Your task to perform on an android device: open app "Move to iOS" (install if not already installed) and enter user name: "Decca@icloud.com" and password: "reabbreviate" Image 0: 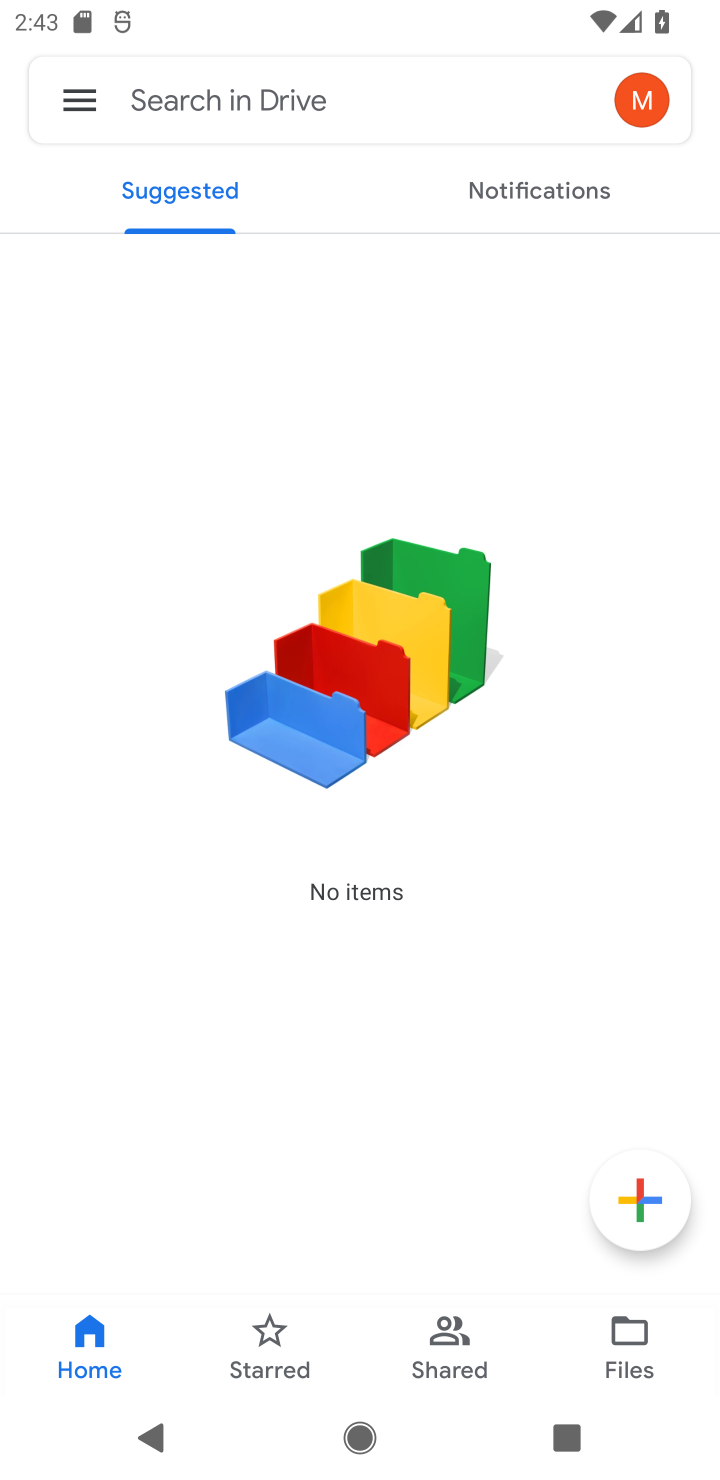
Step 0: click (591, 347)
Your task to perform on an android device: open app "Move to iOS" (install if not already installed) and enter user name: "Decca@icloud.com" and password: "reabbreviate" Image 1: 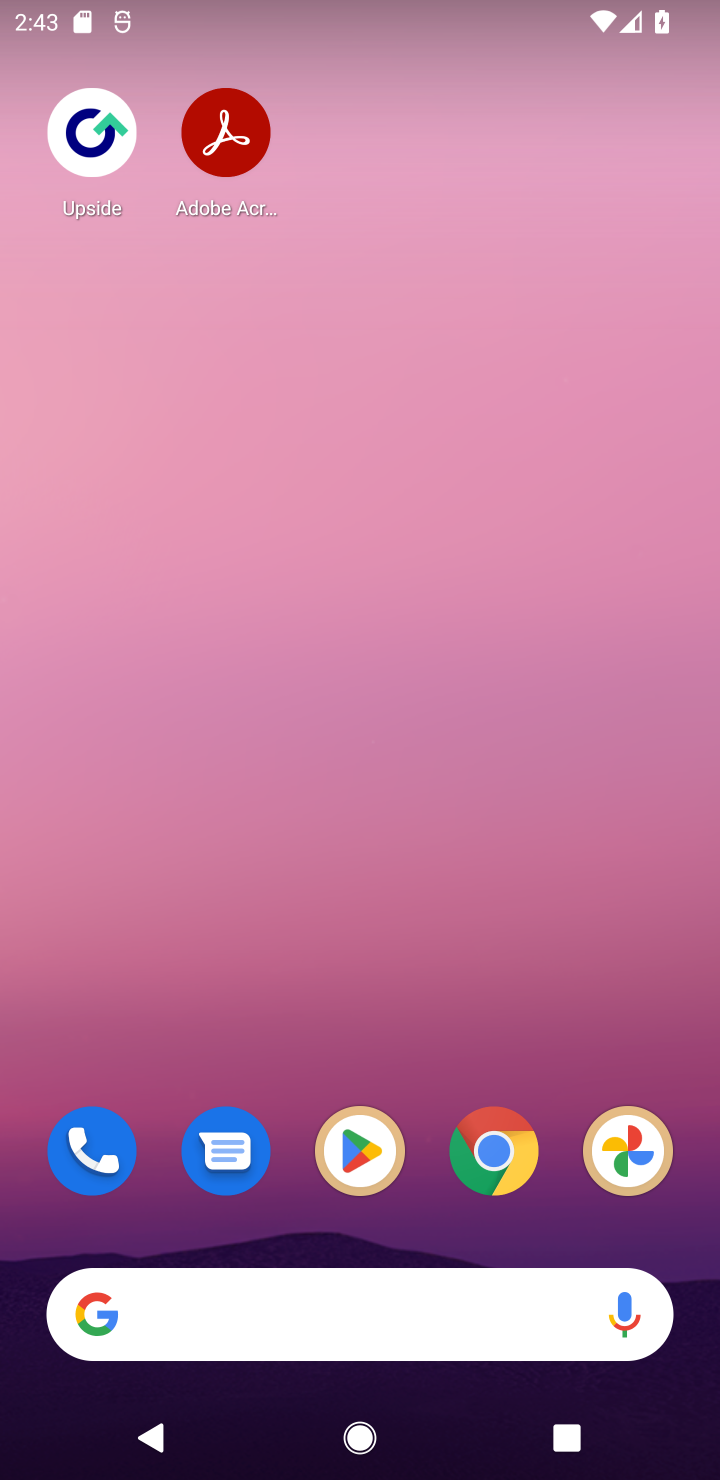
Step 1: click (377, 1174)
Your task to perform on an android device: open app "Move to iOS" (install if not already installed) and enter user name: "Decca@icloud.com" and password: "reabbreviate" Image 2: 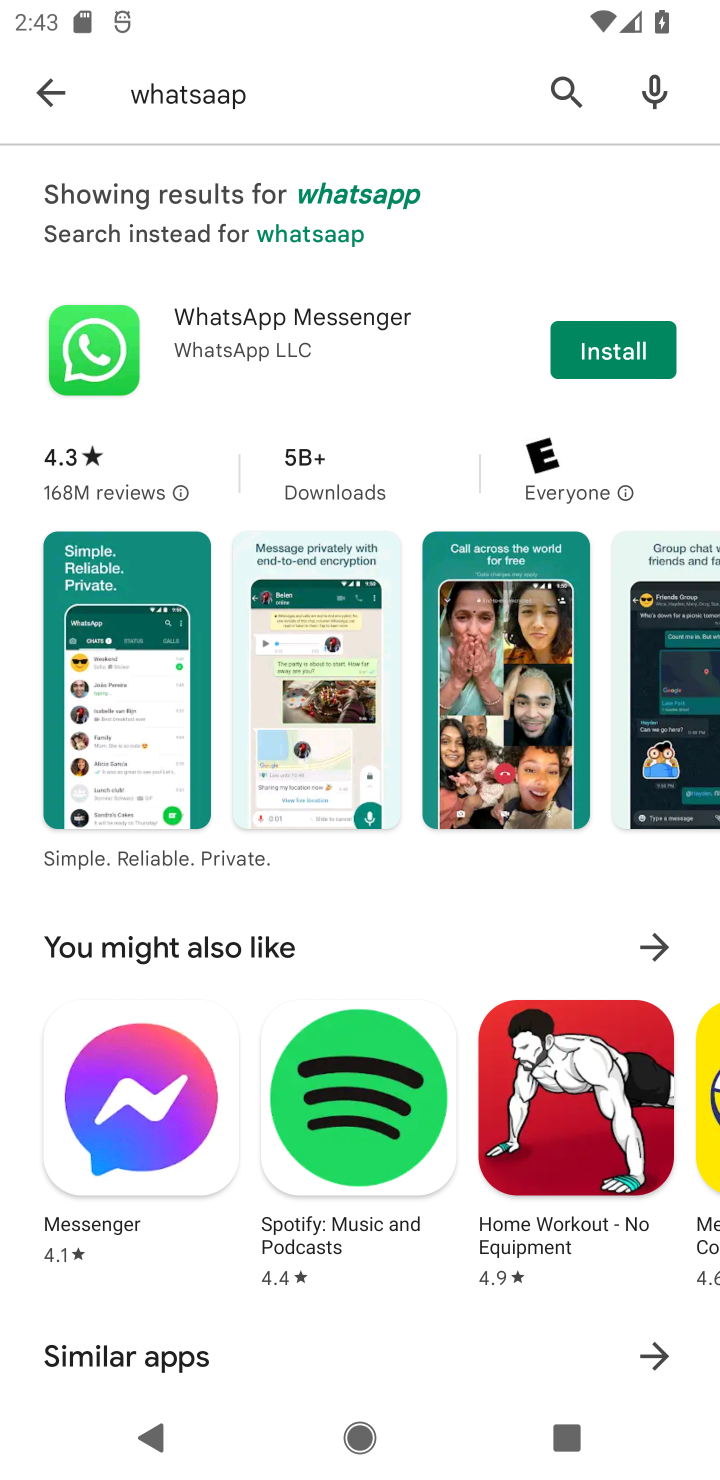
Step 2: click (573, 355)
Your task to perform on an android device: open app "Move to iOS" (install if not already installed) and enter user name: "Decca@icloud.com" and password: "reabbreviate" Image 3: 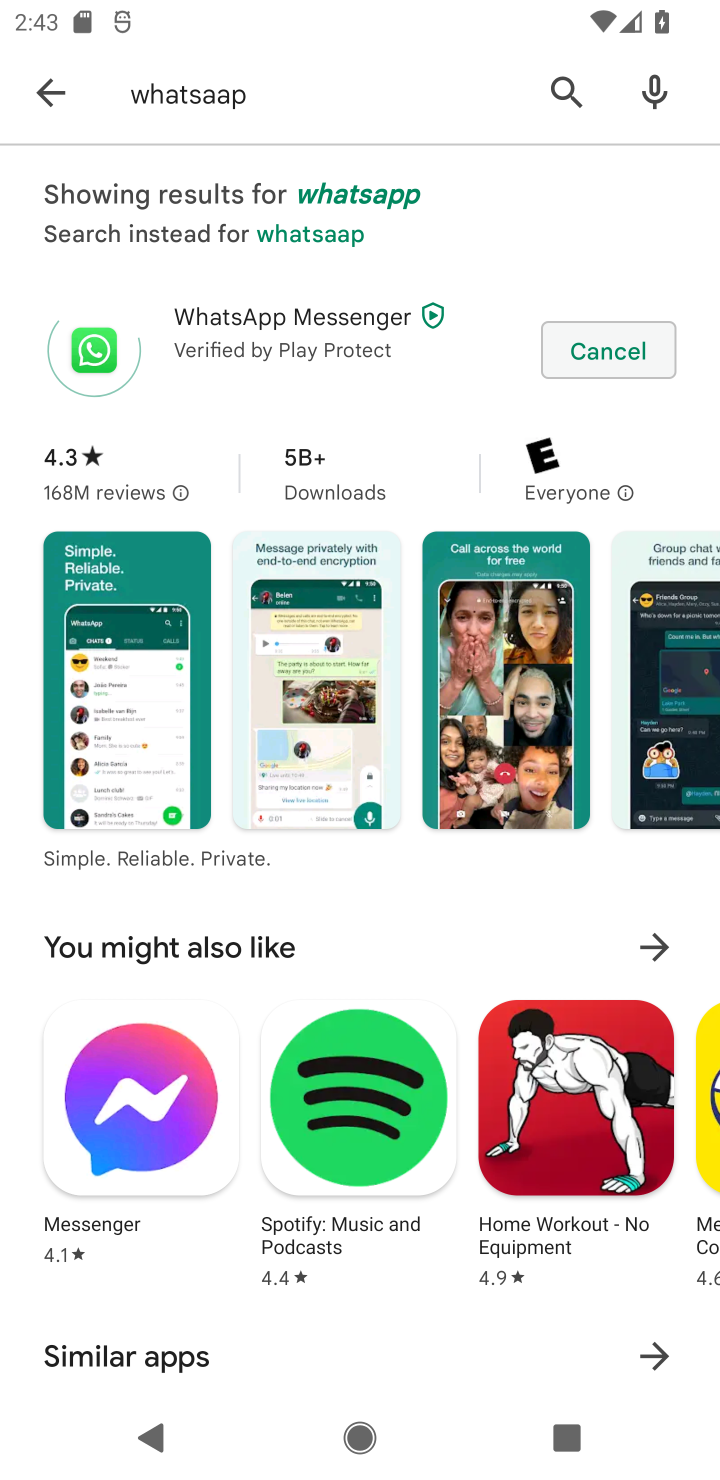
Step 3: click (573, 91)
Your task to perform on an android device: open app "Move to iOS" (install if not already installed) and enter user name: "Decca@icloud.com" and password: "reabbreviate" Image 4: 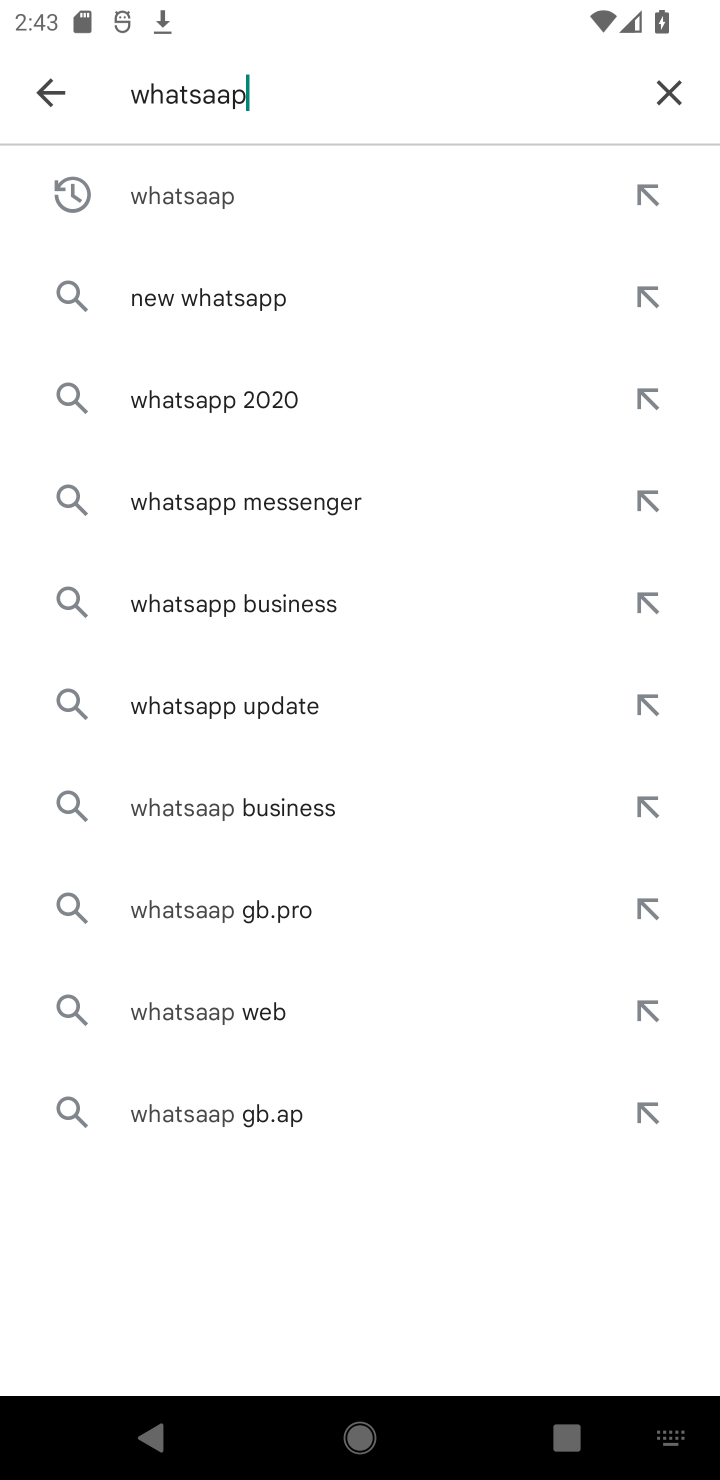
Step 4: click (672, 91)
Your task to perform on an android device: open app "Move to iOS" (install if not already installed) and enter user name: "Decca@icloud.com" and password: "reabbreviate" Image 5: 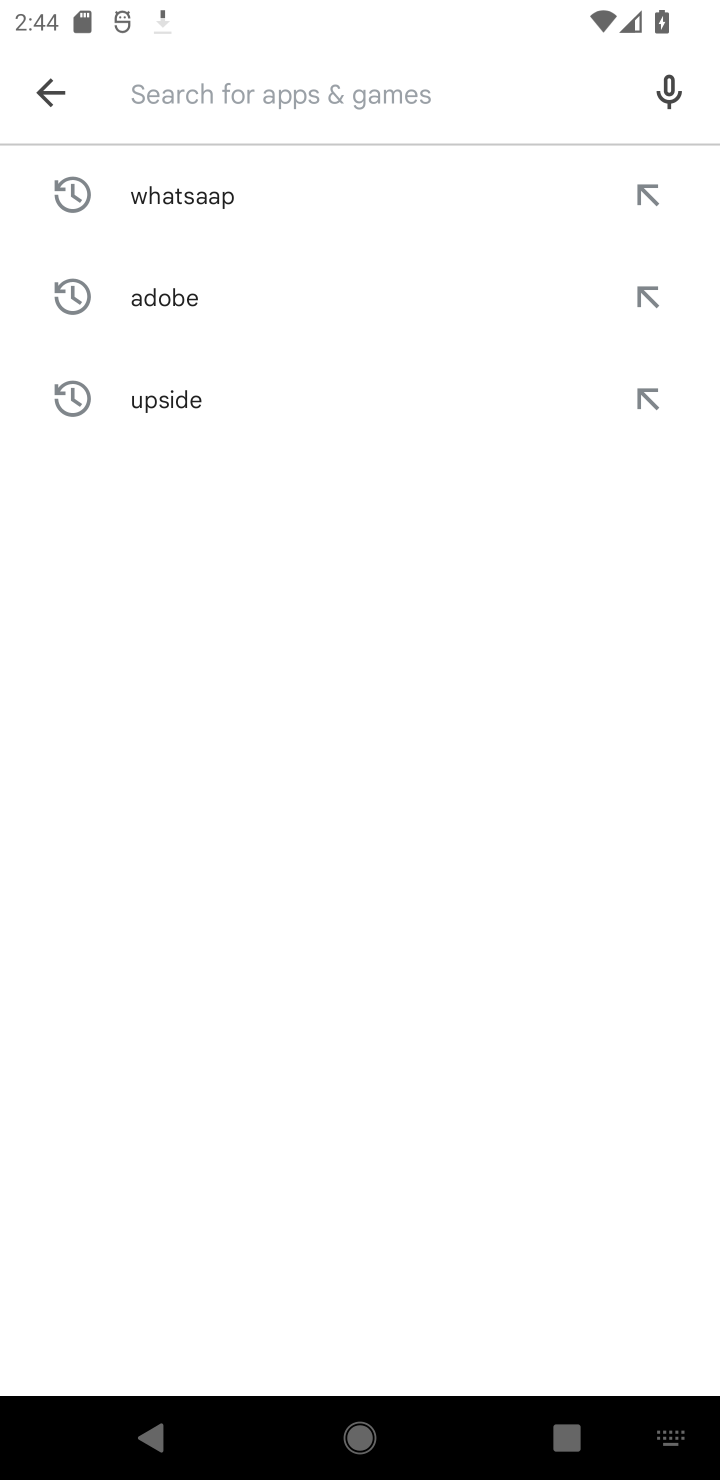
Step 5: type "moveiso"
Your task to perform on an android device: open app "Move to iOS" (install if not already installed) and enter user name: "Decca@icloud.com" and password: "reabbreviate" Image 6: 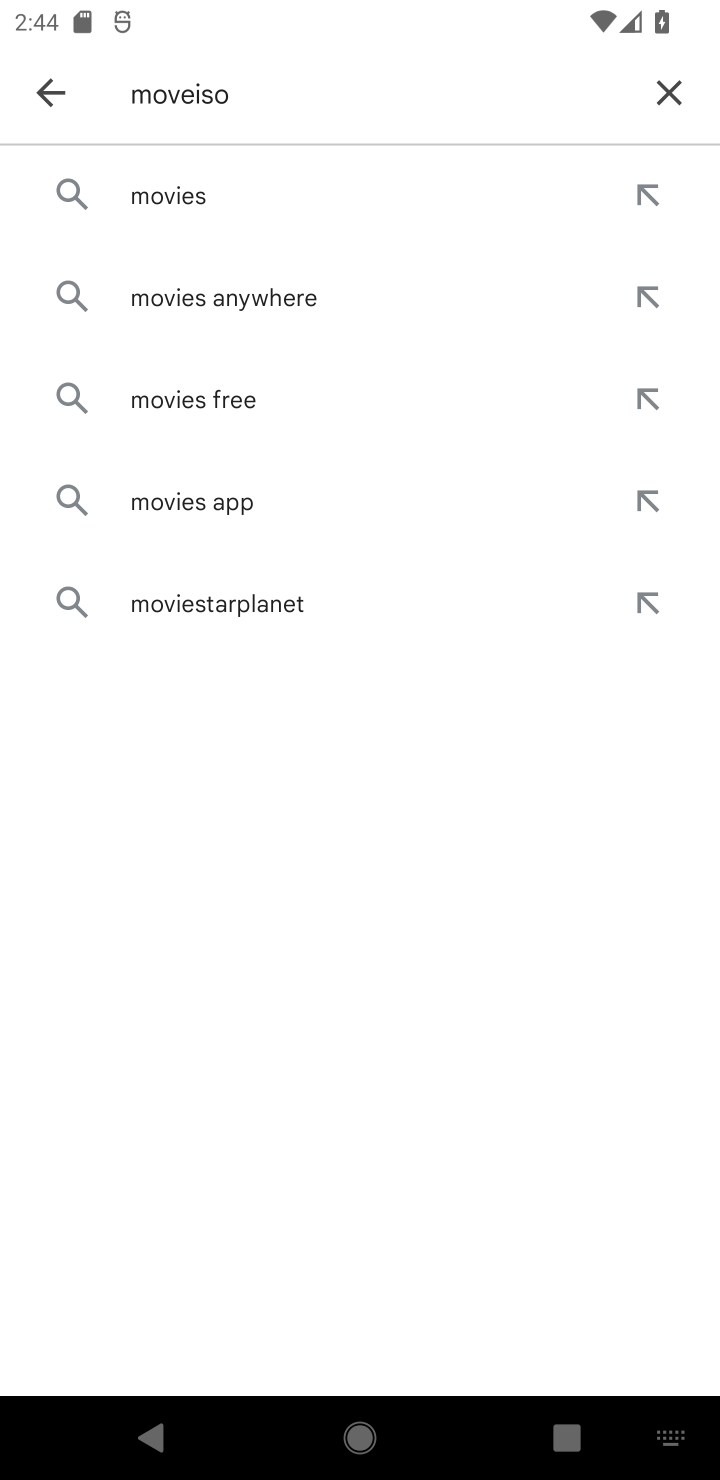
Step 6: click (237, 218)
Your task to perform on an android device: open app "Move to iOS" (install if not already installed) and enter user name: "Decca@icloud.com" and password: "reabbreviate" Image 7: 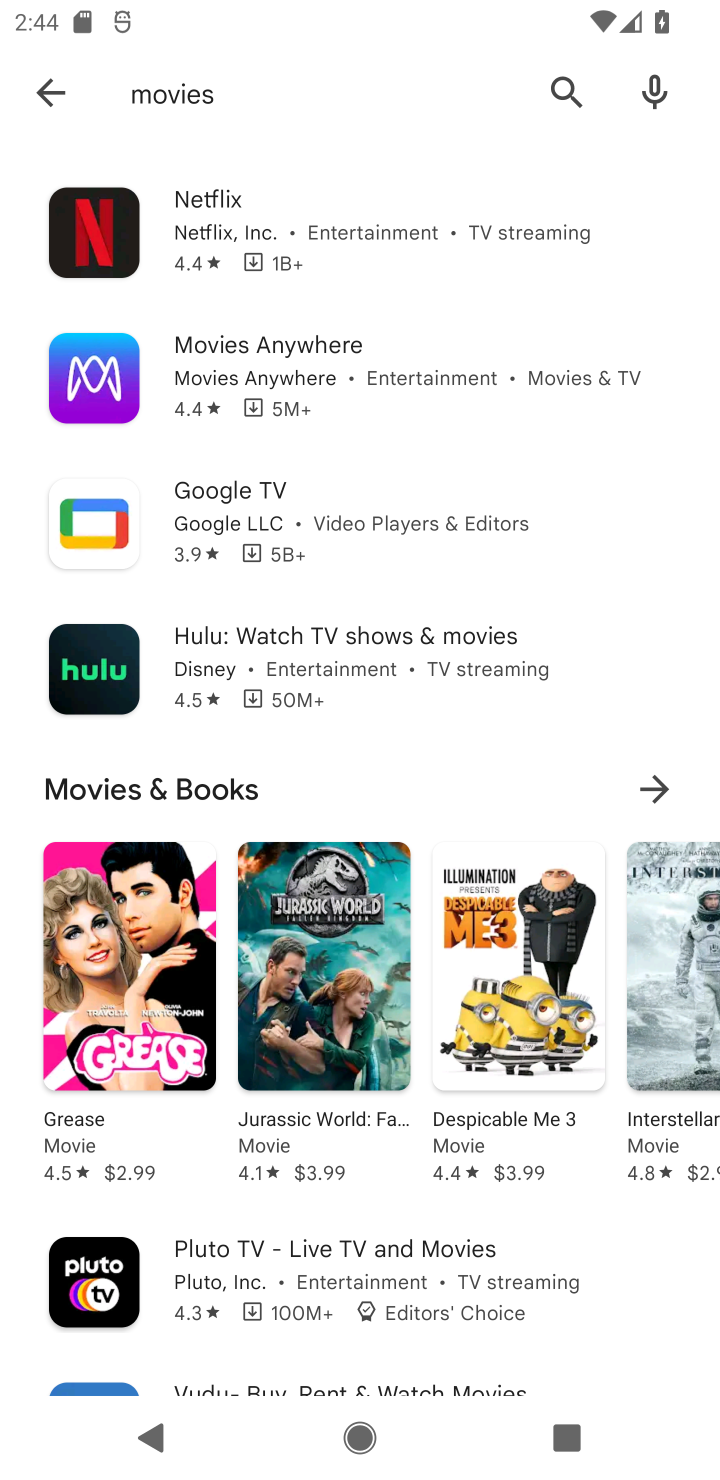
Step 7: click (532, 107)
Your task to perform on an android device: open app "Move to iOS" (install if not already installed) and enter user name: "Decca@icloud.com" and password: "reabbreviate" Image 8: 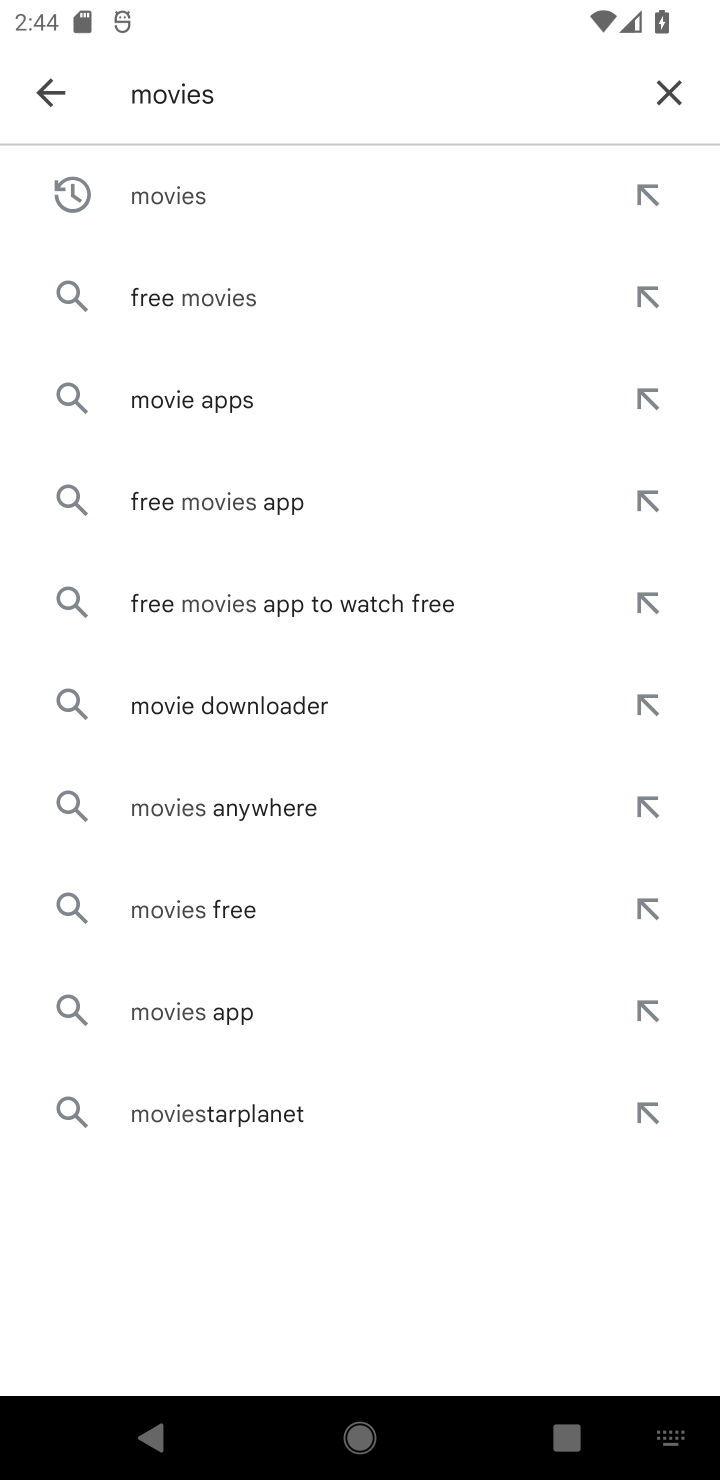
Step 8: click (650, 99)
Your task to perform on an android device: open app "Move to iOS" (install if not already installed) and enter user name: "Decca@icloud.com" and password: "reabbreviate" Image 9: 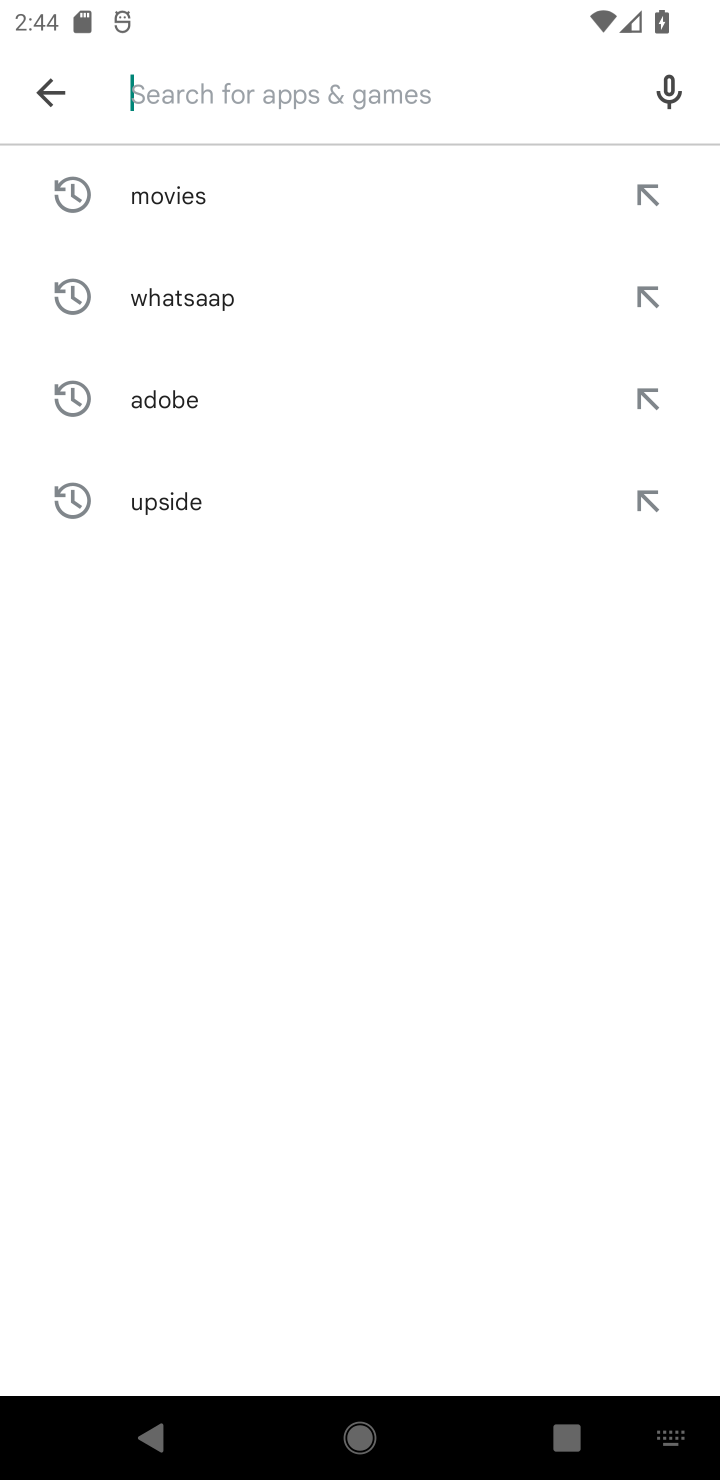
Step 9: type "MOVE ISO"
Your task to perform on an android device: open app "Move to iOS" (install if not already installed) and enter user name: "Decca@icloud.com" and password: "reabbreviate" Image 10: 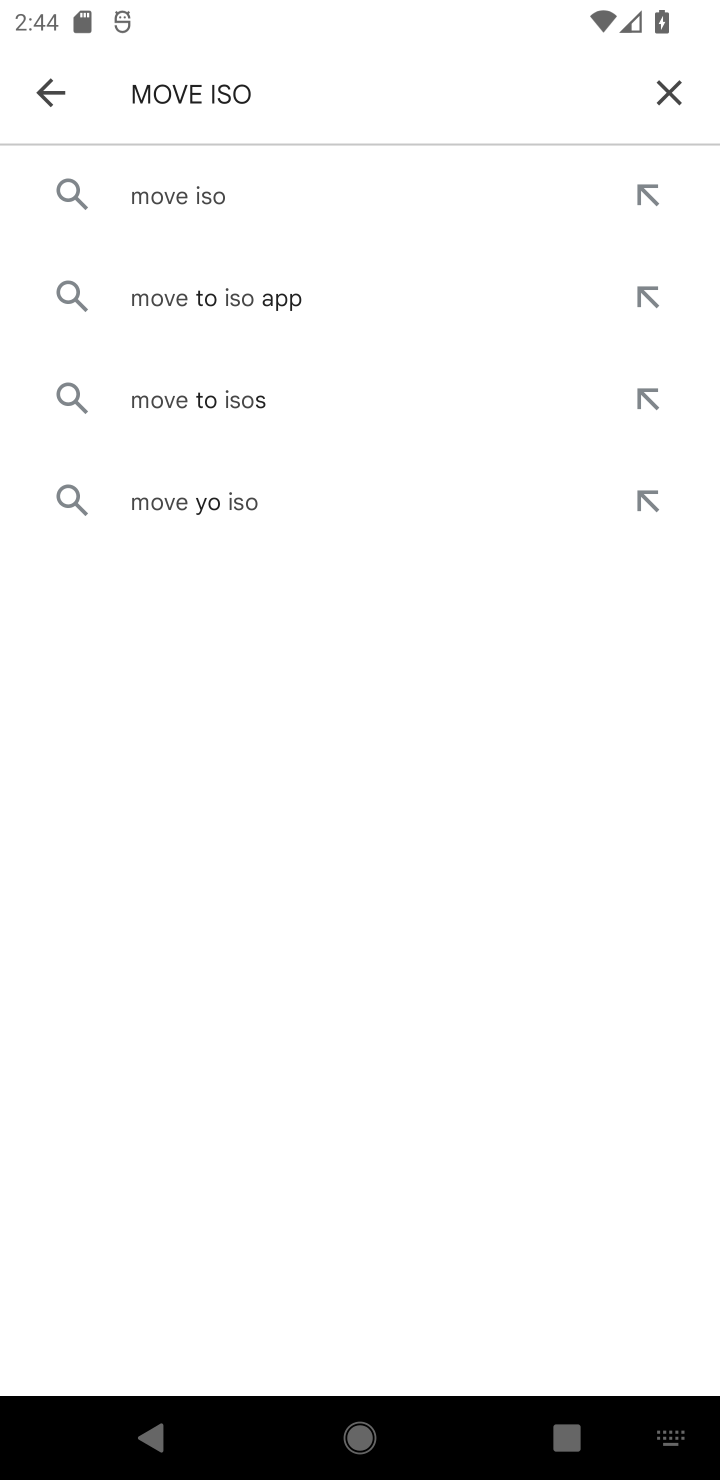
Step 10: click (466, 202)
Your task to perform on an android device: open app "Move to iOS" (install if not already installed) and enter user name: "Decca@icloud.com" and password: "reabbreviate" Image 11: 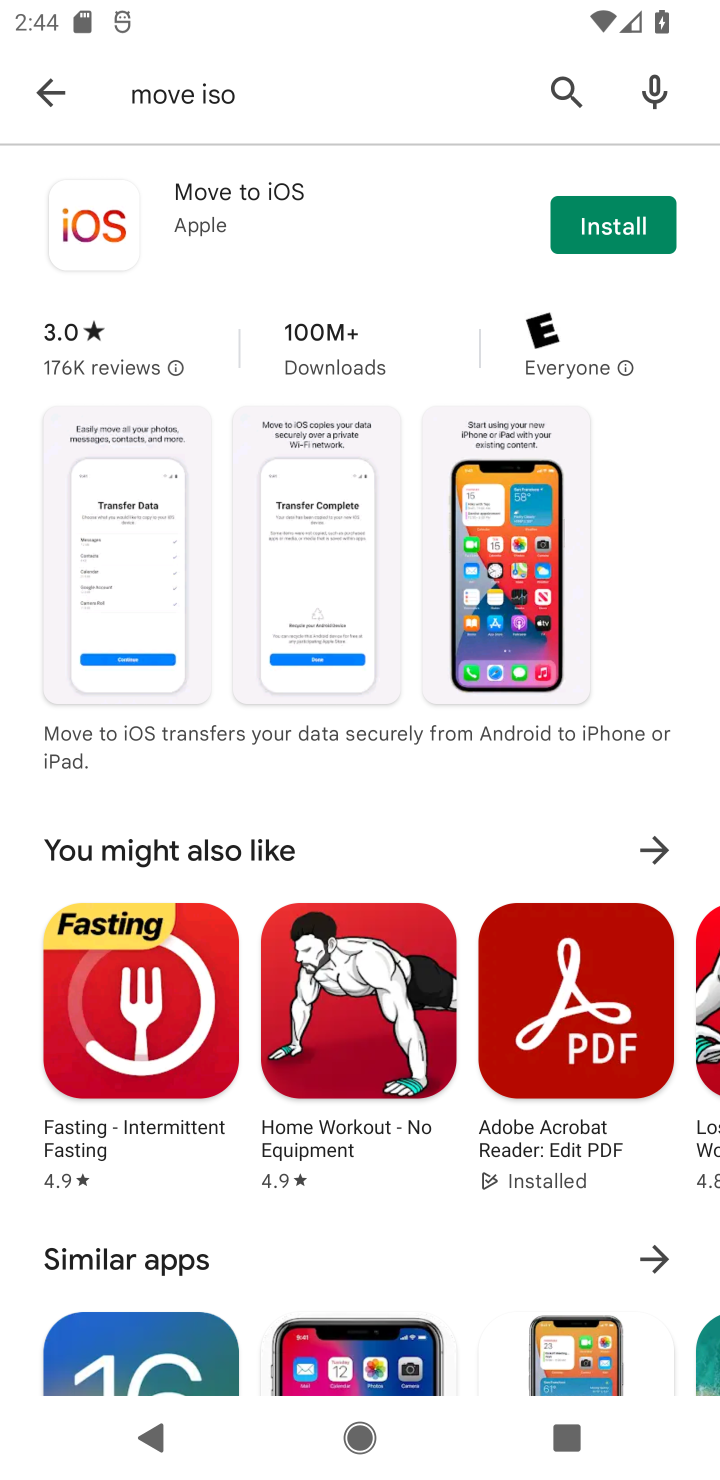
Step 11: click (585, 241)
Your task to perform on an android device: open app "Move to iOS" (install if not already installed) and enter user name: "Decca@icloud.com" and password: "reabbreviate" Image 12: 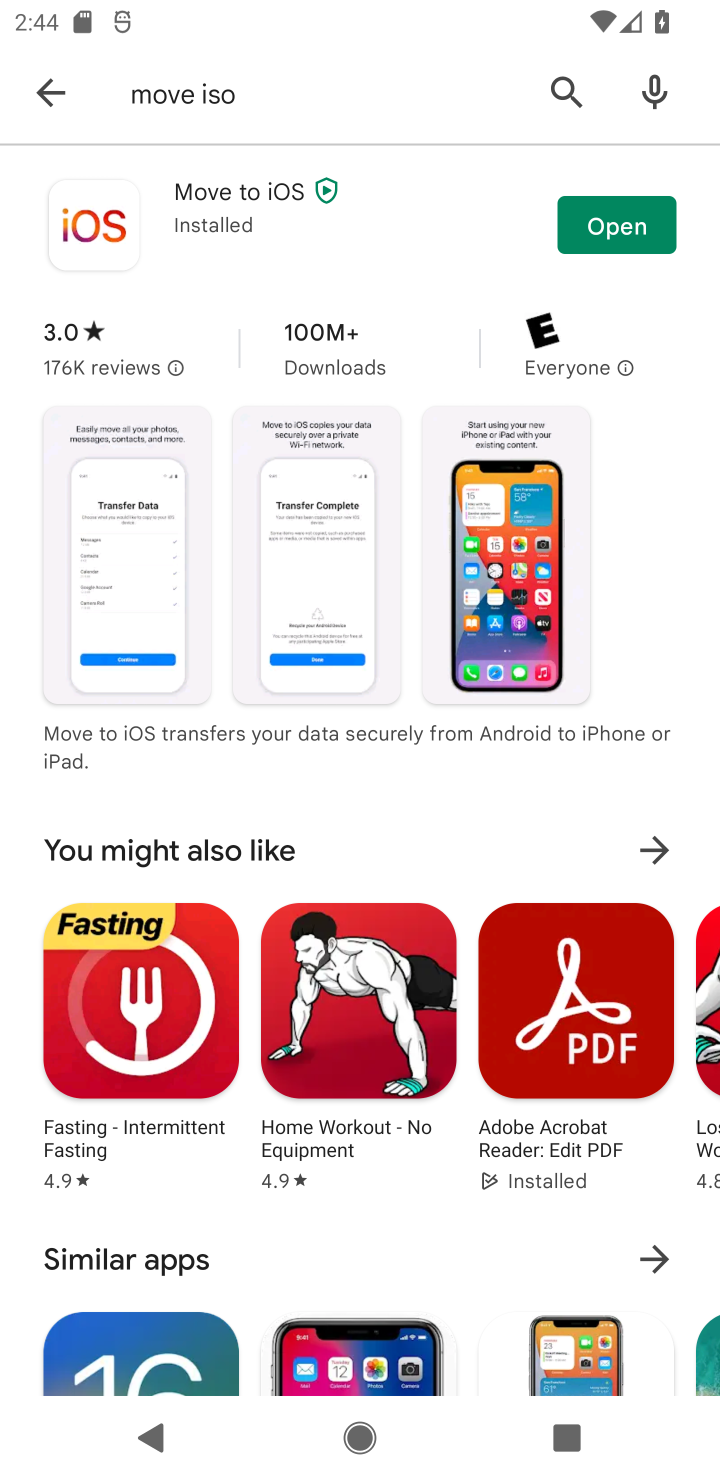
Step 12: click (654, 229)
Your task to perform on an android device: open app "Move to iOS" (install if not already installed) and enter user name: "Decca@icloud.com" and password: "reabbreviate" Image 13: 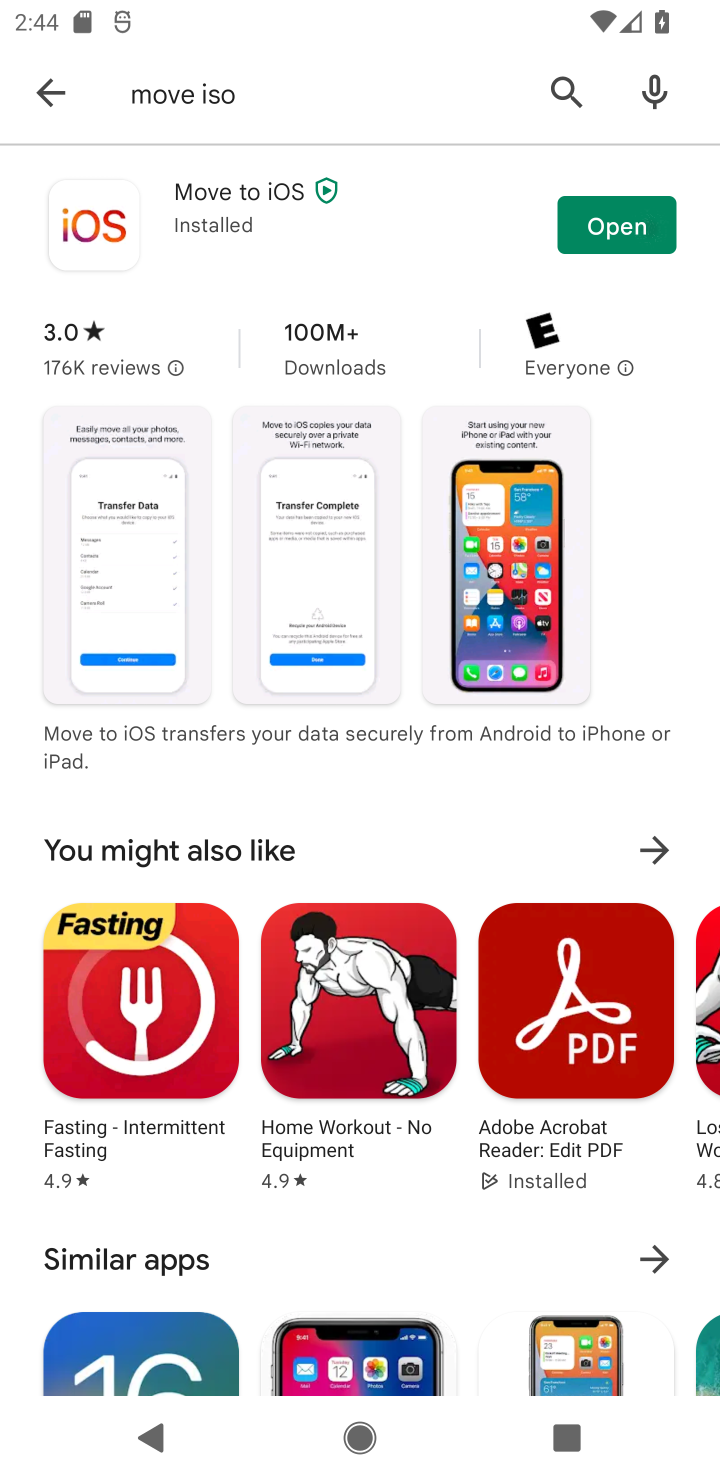
Step 13: task complete